Your task to perform on an android device: Go to network settings Image 0: 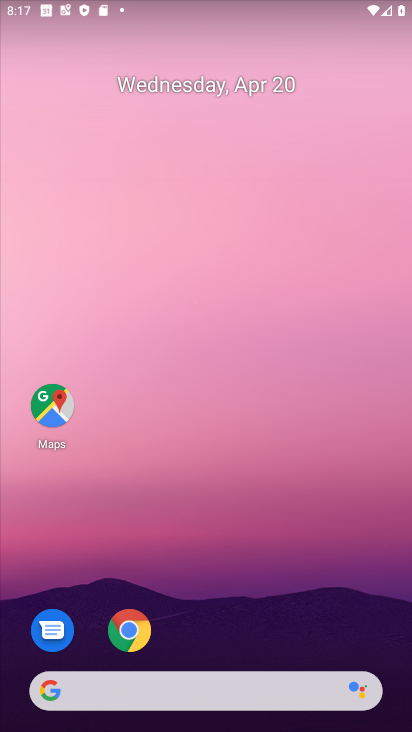
Step 0: drag from (273, 362) to (312, 64)
Your task to perform on an android device: Go to network settings Image 1: 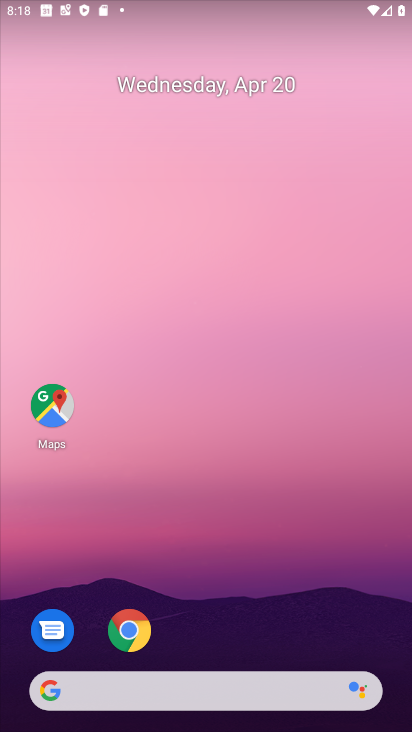
Step 1: drag from (270, 495) to (232, 41)
Your task to perform on an android device: Go to network settings Image 2: 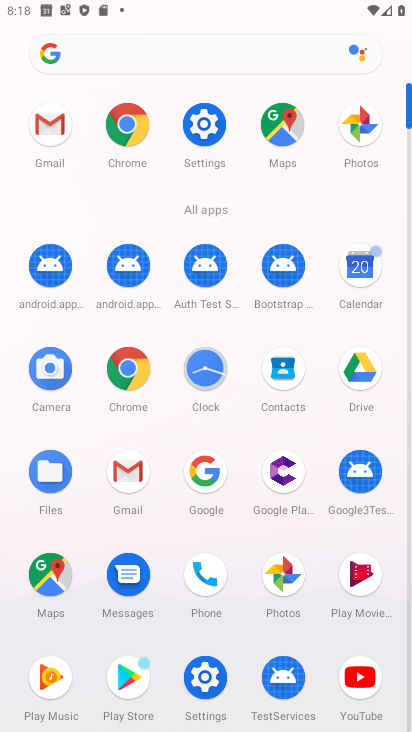
Step 2: click (200, 141)
Your task to perform on an android device: Go to network settings Image 3: 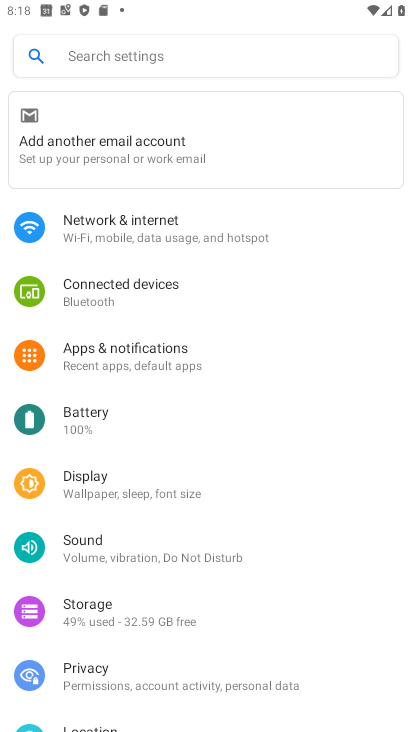
Step 3: click (172, 220)
Your task to perform on an android device: Go to network settings Image 4: 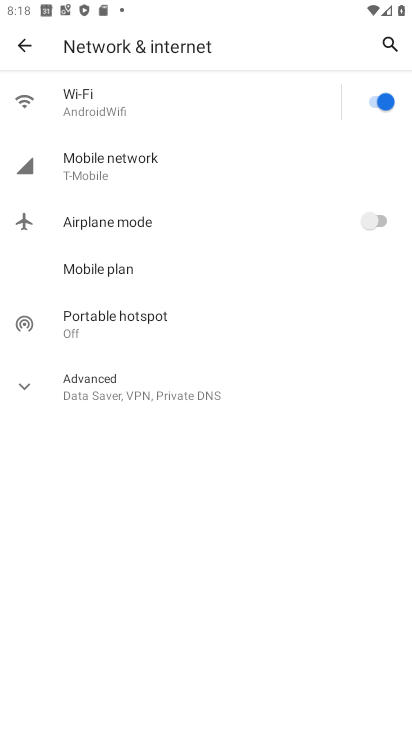
Step 4: task complete